Your task to perform on an android device: Open the calendar app, open the side menu, and click the "Day" option Image 0: 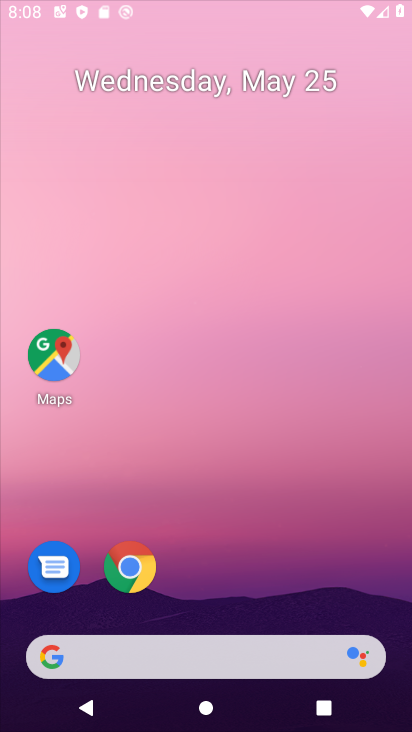
Step 0: drag from (306, 585) to (289, 98)
Your task to perform on an android device: Open the calendar app, open the side menu, and click the "Day" option Image 1: 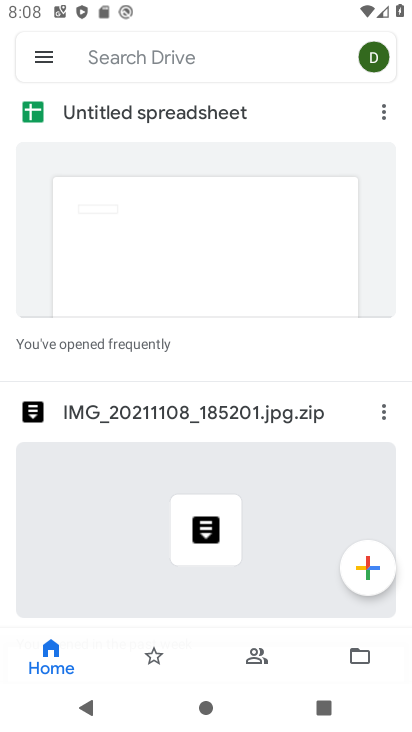
Step 1: press home button
Your task to perform on an android device: Open the calendar app, open the side menu, and click the "Day" option Image 2: 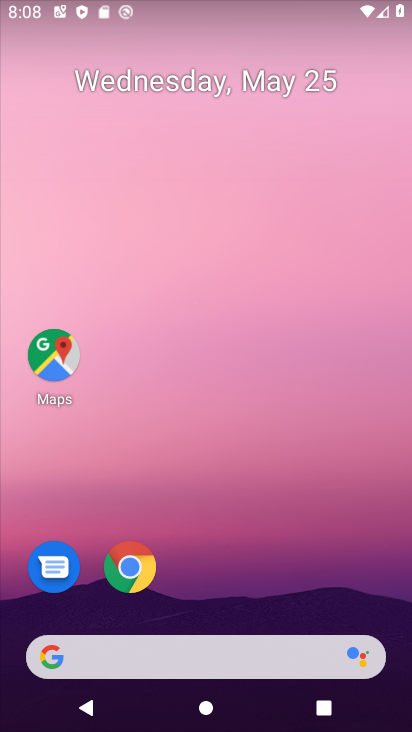
Step 2: drag from (260, 563) to (252, 13)
Your task to perform on an android device: Open the calendar app, open the side menu, and click the "Day" option Image 3: 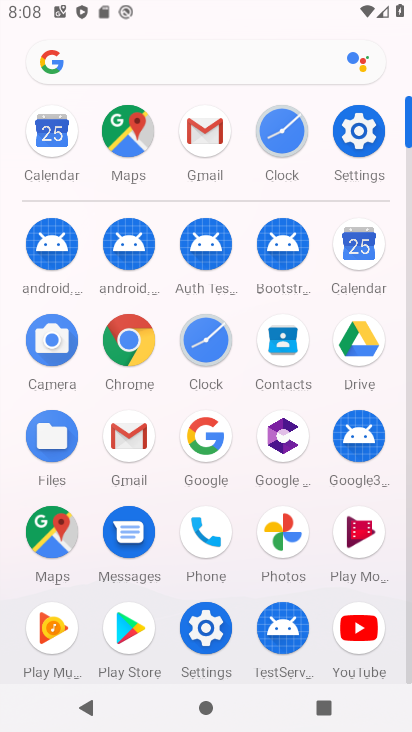
Step 3: click (39, 173)
Your task to perform on an android device: Open the calendar app, open the side menu, and click the "Day" option Image 4: 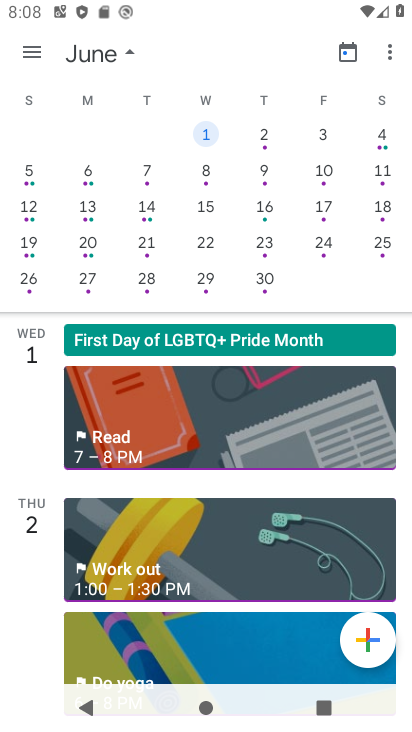
Step 4: click (43, 56)
Your task to perform on an android device: Open the calendar app, open the side menu, and click the "Day" option Image 5: 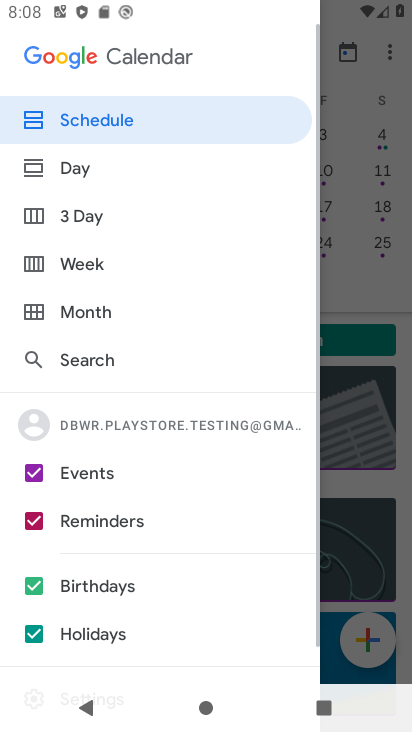
Step 5: click (87, 166)
Your task to perform on an android device: Open the calendar app, open the side menu, and click the "Day" option Image 6: 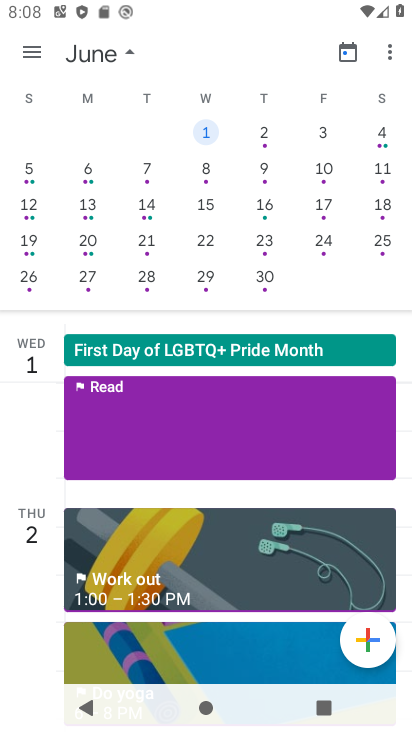
Step 6: task complete